Your task to perform on an android device: toggle pop-ups in chrome Image 0: 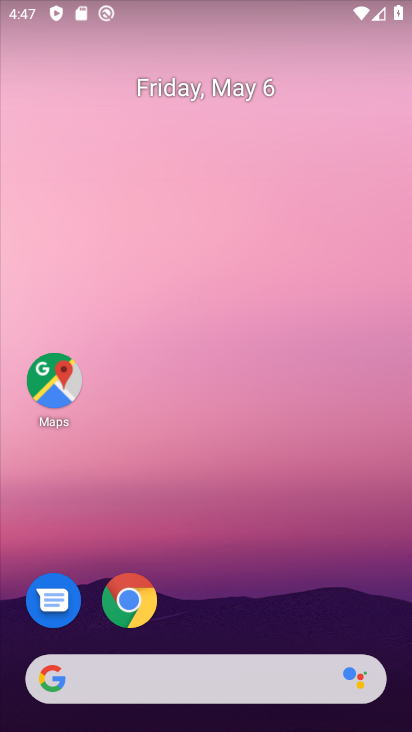
Step 0: drag from (201, 519) to (226, 97)
Your task to perform on an android device: toggle pop-ups in chrome Image 1: 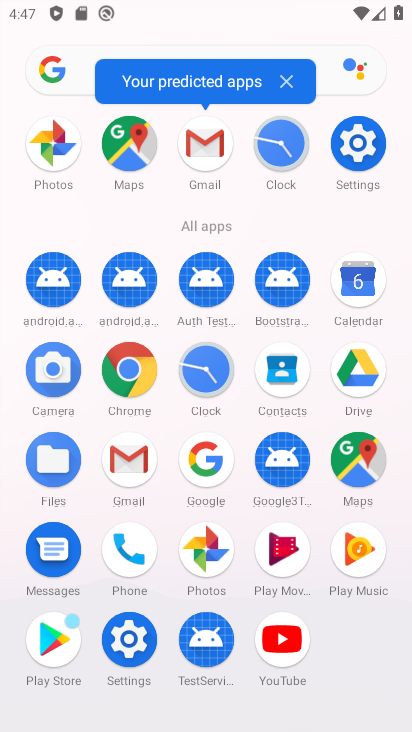
Step 1: click (128, 371)
Your task to perform on an android device: toggle pop-ups in chrome Image 2: 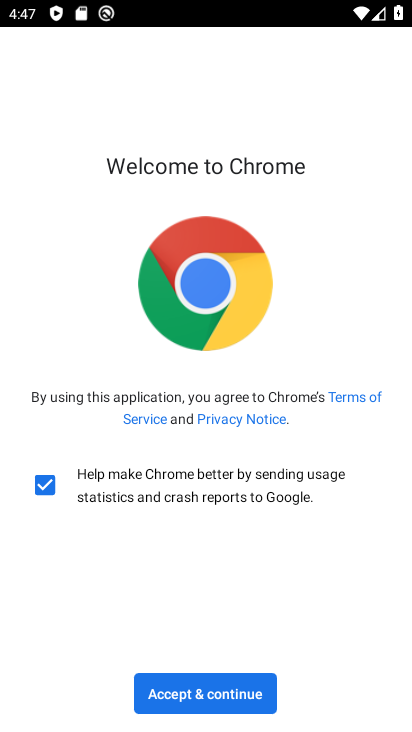
Step 2: click (199, 691)
Your task to perform on an android device: toggle pop-ups in chrome Image 3: 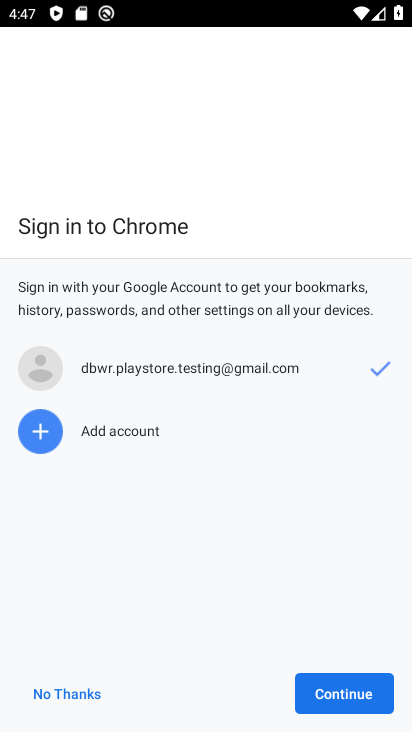
Step 3: click (330, 707)
Your task to perform on an android device: toggle pop-ups in chrome Image 4: 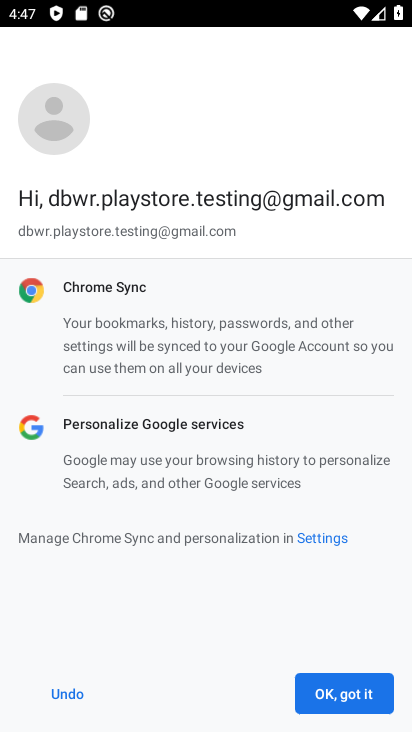
Step 4: click (334, 689)
Your task to perform on an android device: toggle pop-ups in chrome Image 5: 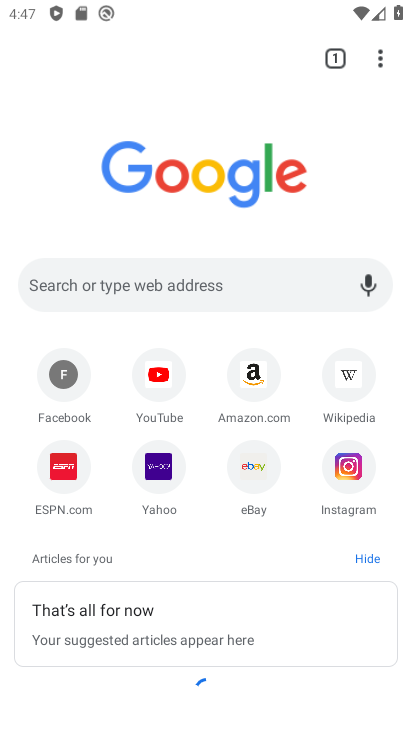
Step 5: click (378, 71)
Your task to perform on an android device: toggle pop-ups in chrome Image 6: 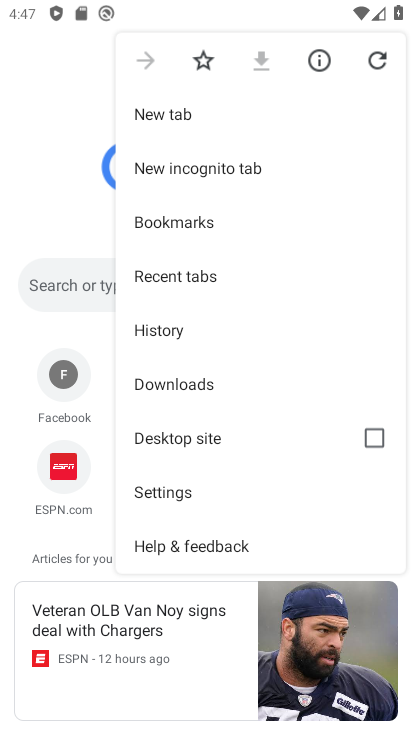
Step 6: click (171, 488)
Your task to perform on an android device: toggle pop-ups in chrome Image 7: 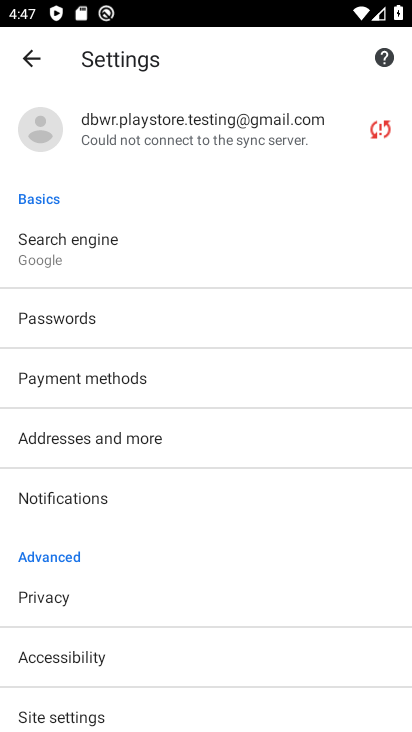
Step 7: drag from (101, 576) to (106, 341)
Your task to perform on an android device: toggle pop-ups in chrome Image 8: 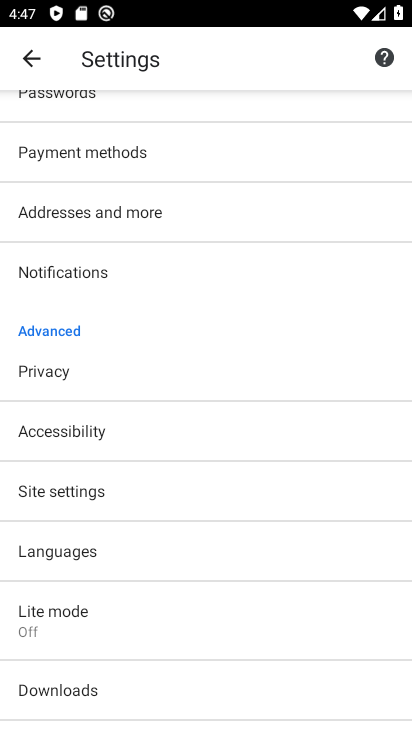
Step 8: click (80, 489)
Your task to perform on an android device: toggle pop-ups in chrome Image 9: 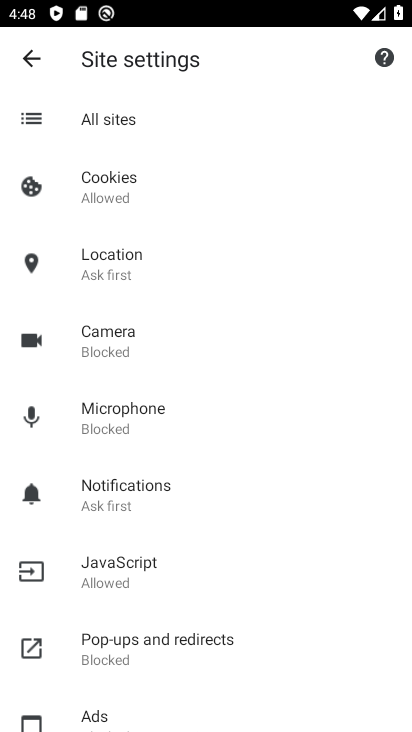
Step 9: click (127, 646)
Your task to perform on an android device: toggle pop-ups in chrome Image 10: 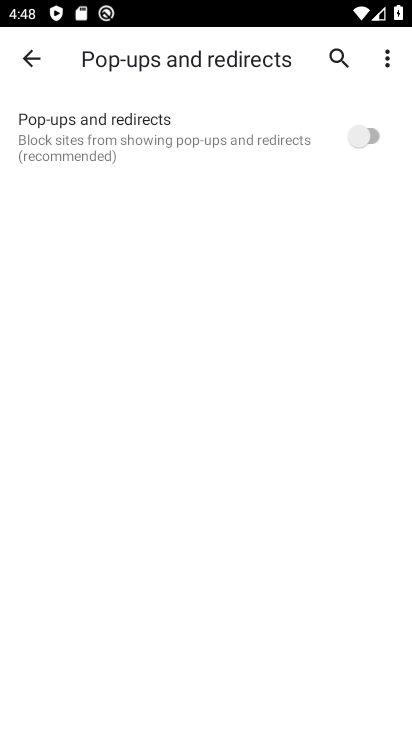
Step 10: click (377, 127)
Your task to perform on an android device: toggle pop-ups in chrome Image 11: 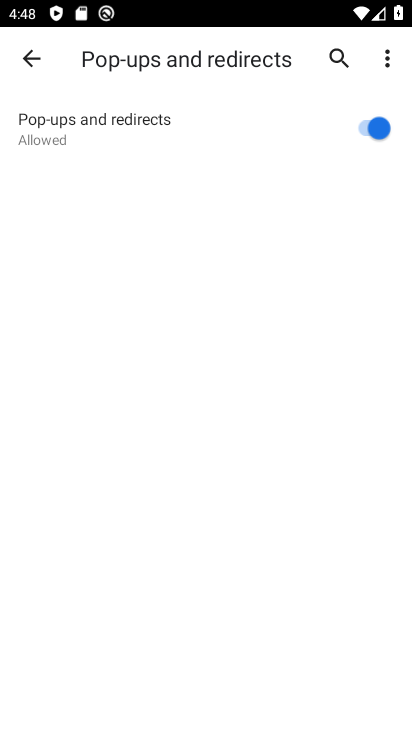
Step 11: task complete